Your task to perform on an android device: turn on notifications settings in the gmail app Image 0: 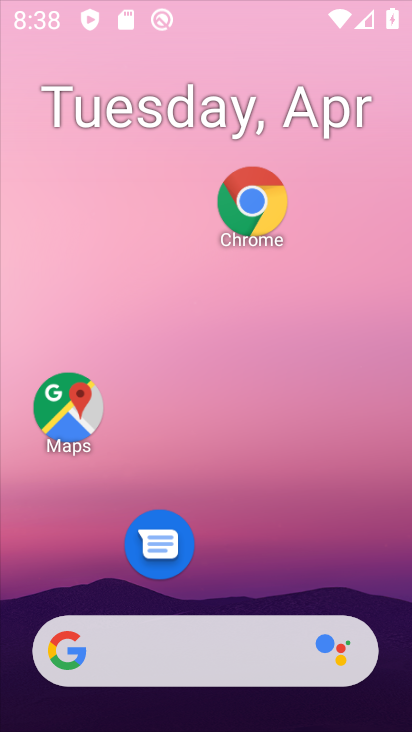
Step 0: click (329, 53)
Your task to perform on an android device: turn on notifications settings in the gmail app Image 1: 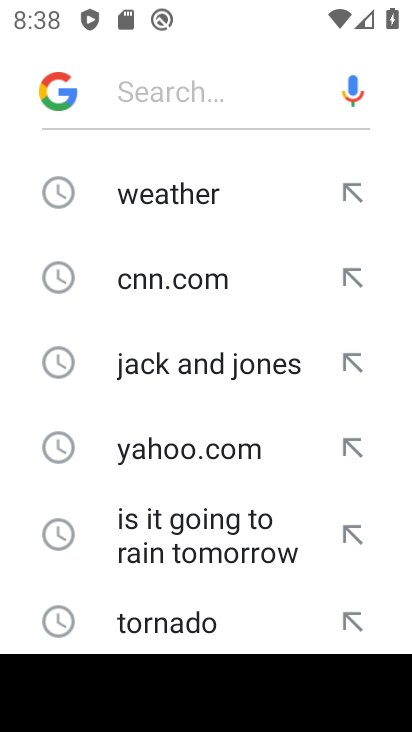
Step 1: press home button
Your task to perform on an android device: turn on notifications settings in the gmail app Image 2: 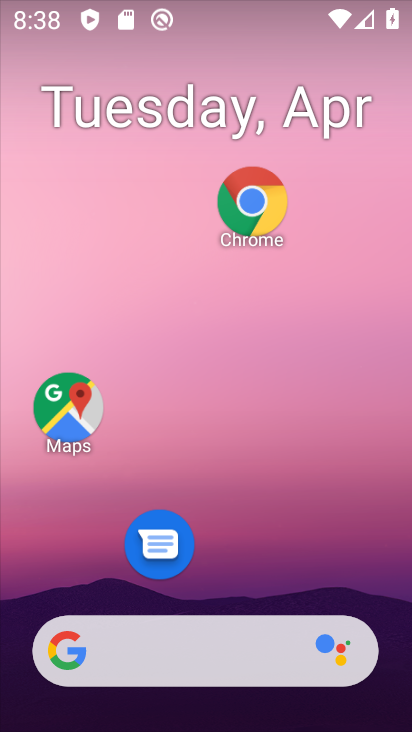
Step 2: drag from (276, 466) to (328, 89)
Your task to perform on an android device: turn on notifications settings in the gmail app Image 3: 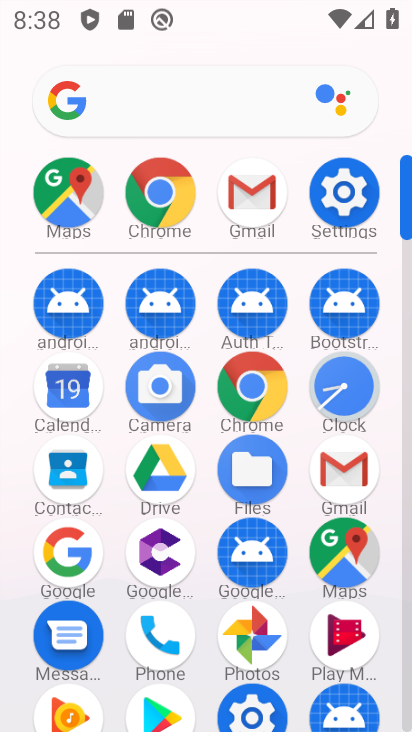
Step 3: click (269, 191)
Your task to perform on an android device: turn on notifications settings in the gmail app Image 4: 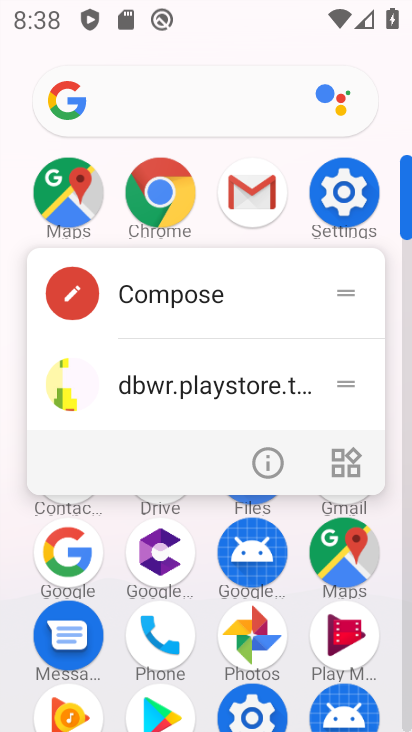
Step 4: click (266, 463)
Your task to perform on an android device: turn on notifications settings in the gmail app Image 5: 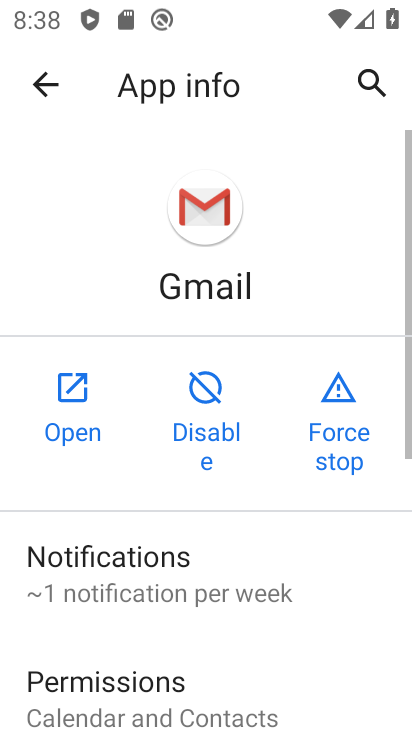
Step 5: click (167, 576)
Your task to perform on an android device: turn on notifications settings in the gmail app Image 6: 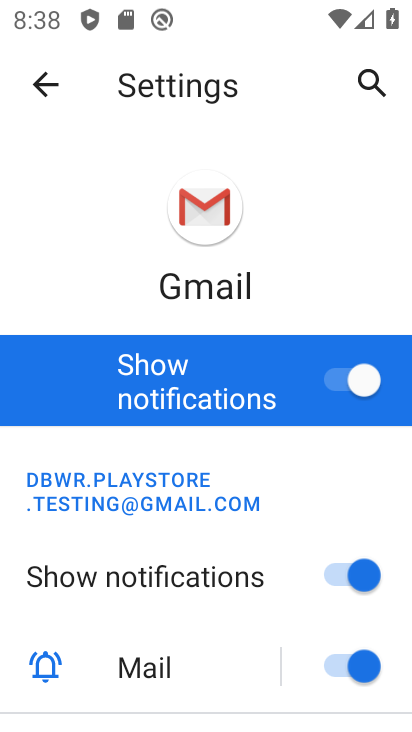
Step 6: task complete